Your task to perform on an android device: open app "Google Docs" (install if not already installed) Image 0: 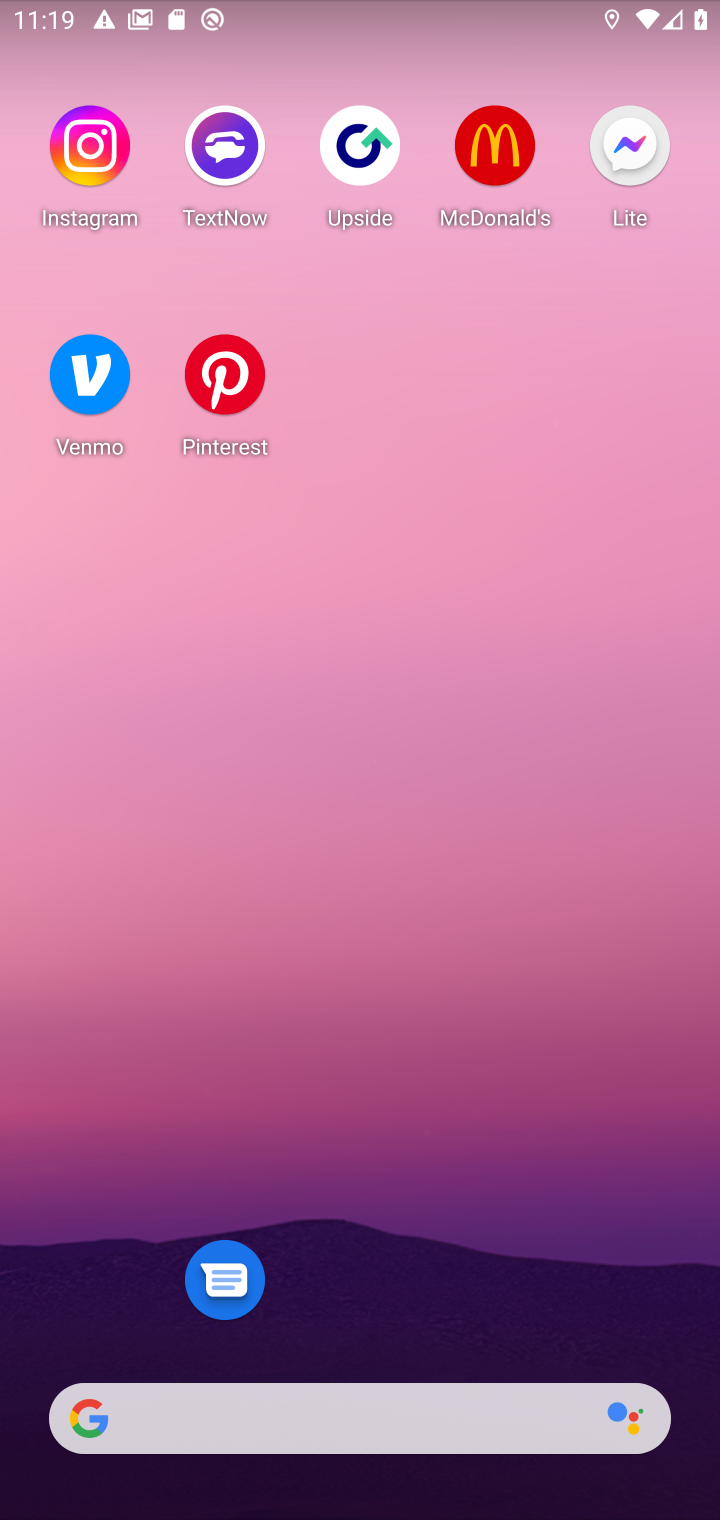
Step 0: drag from (351, 1344) to (249, 0)
Your task to perform on an android device: open app "Google Docs" (install if not already installed) Image 1: 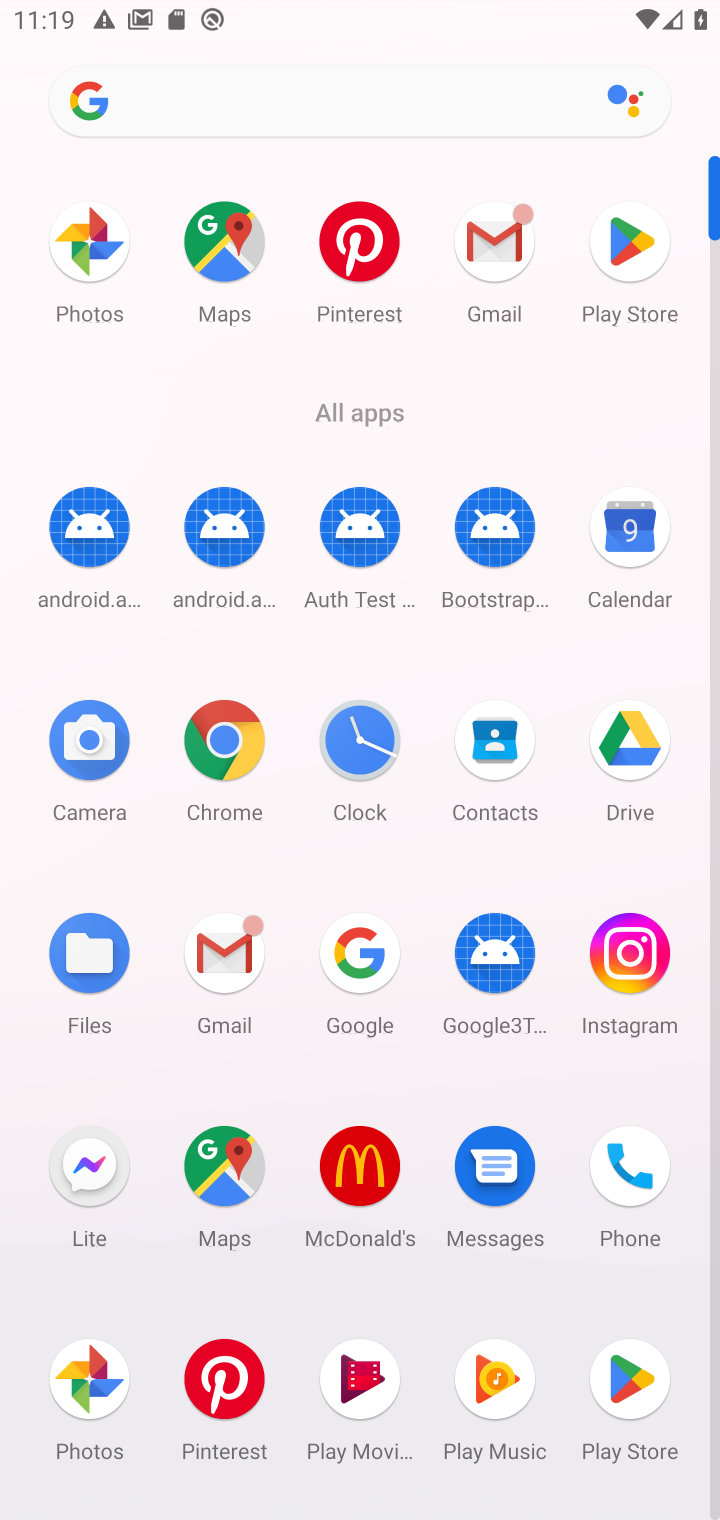
Step 1: click (635, 241)
Your task to perform on an android device: open app "Google Docs" (install if not already installed) Image 2: 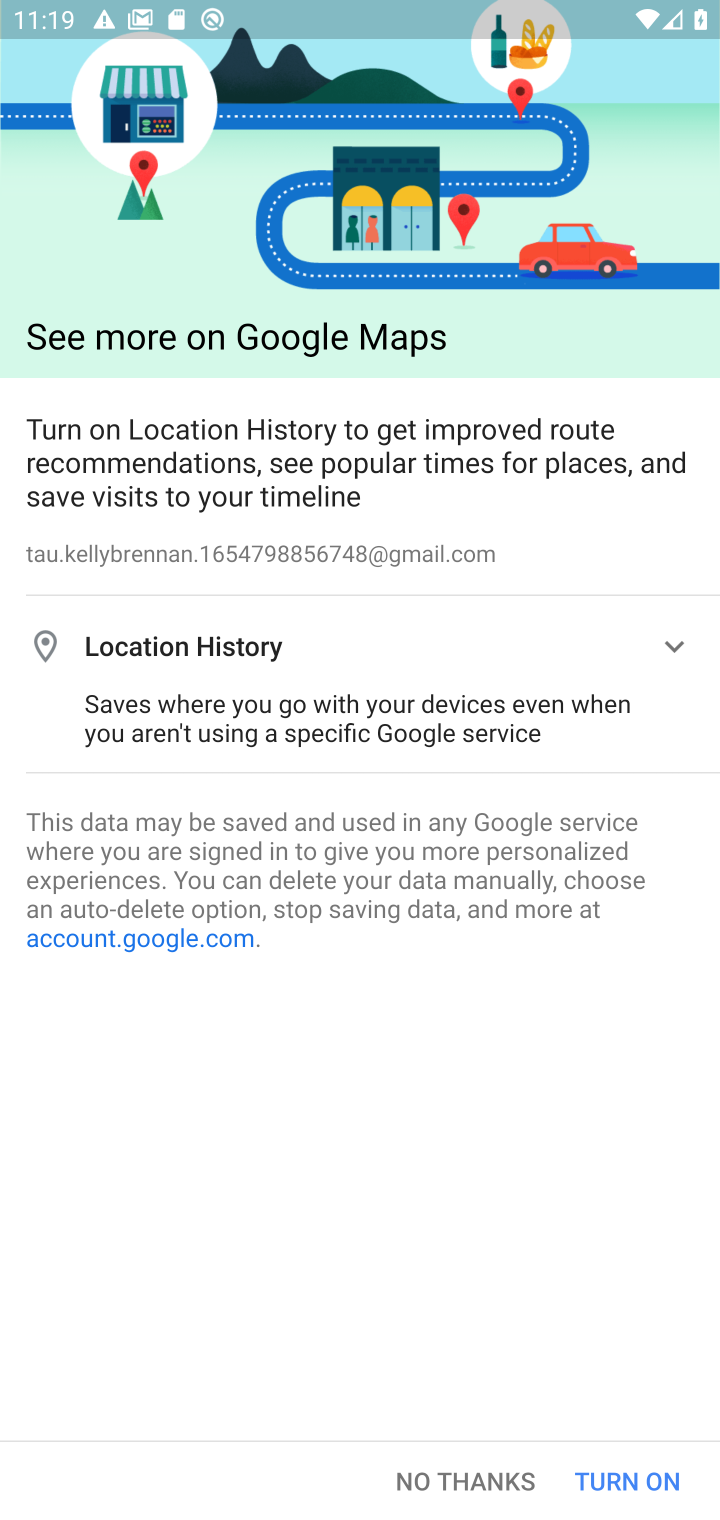
Step 2: press home button
Your task to perform on an android device: open app "Google Docs" (install if not already installed) Image 3: 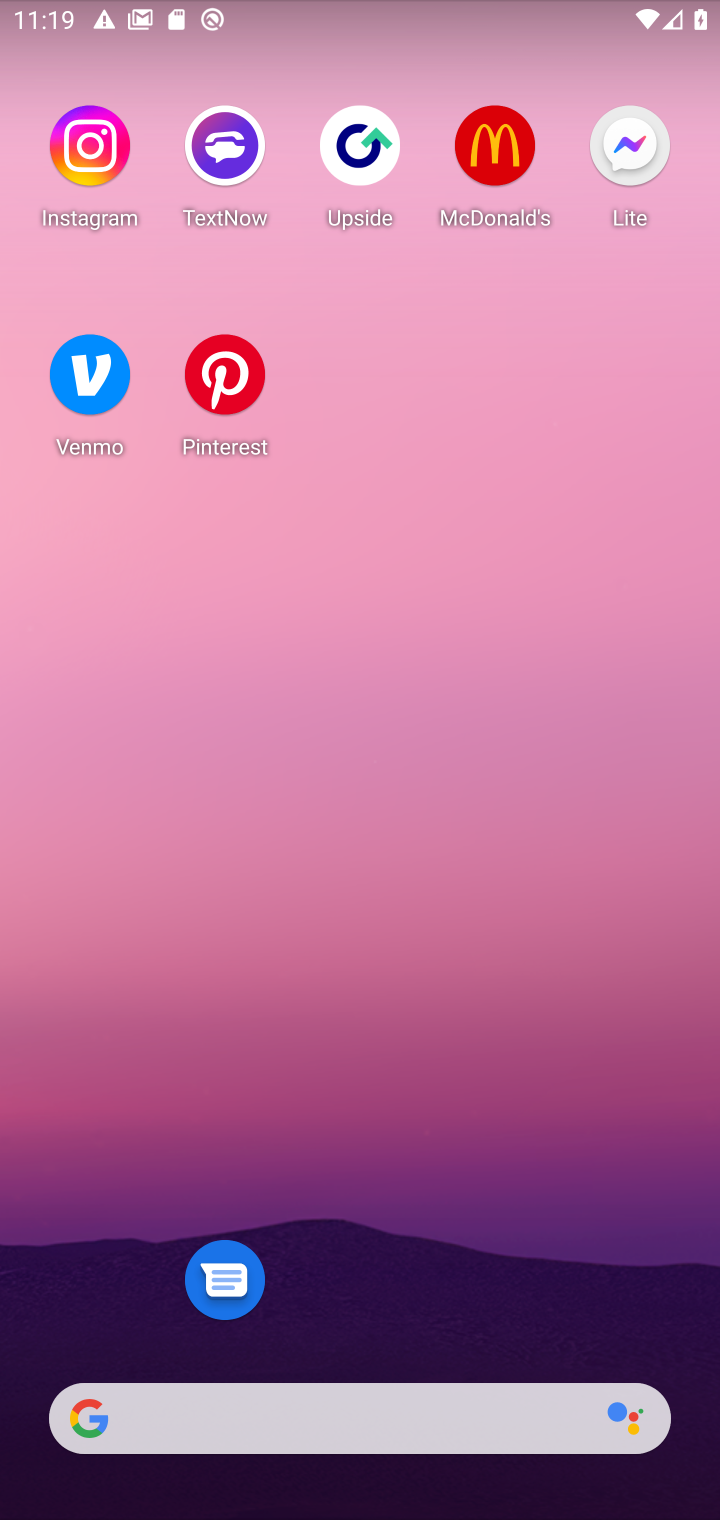
Step 3: drag from (387, 1333) to (658, 621)
Your task to perform on an android device: open app "Google Docs" (install if not already installed) Image 4: 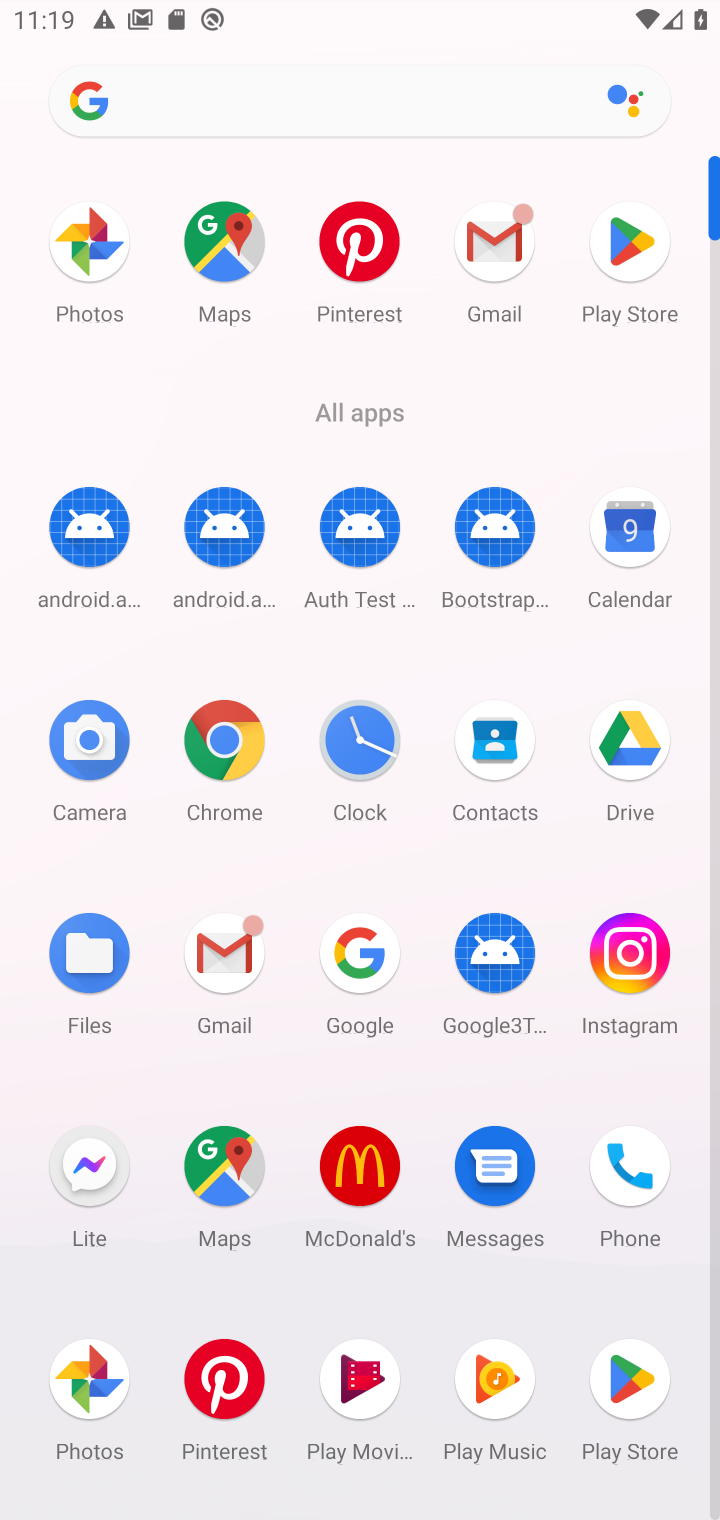
Step 4: click (604, 1392)
Your task to perform on an android device: open app "Google Docs" (install if not already installed) Image 5: 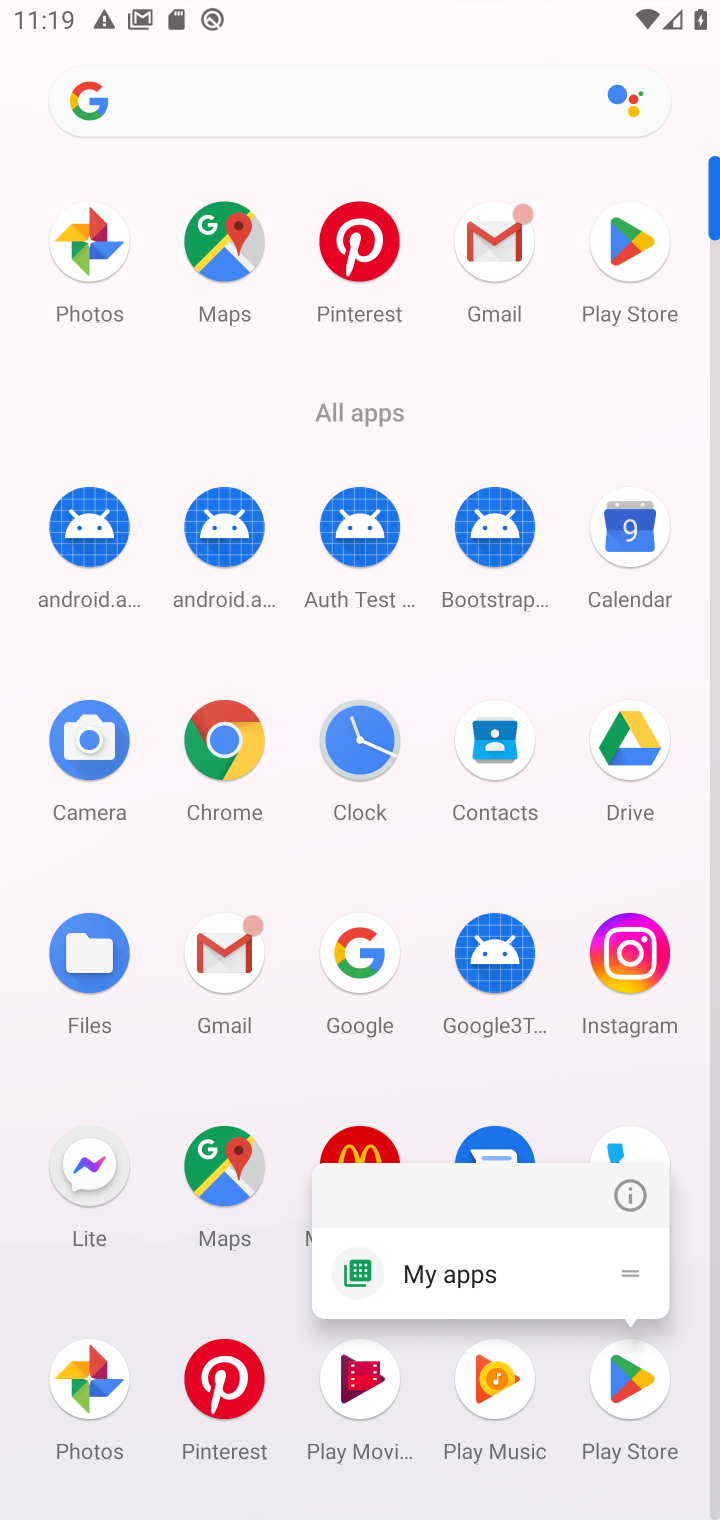
Step 5: click (644, 1423)
Your task to perform on an android device: open app "Google Docs" (install if not already installed) Image 6: 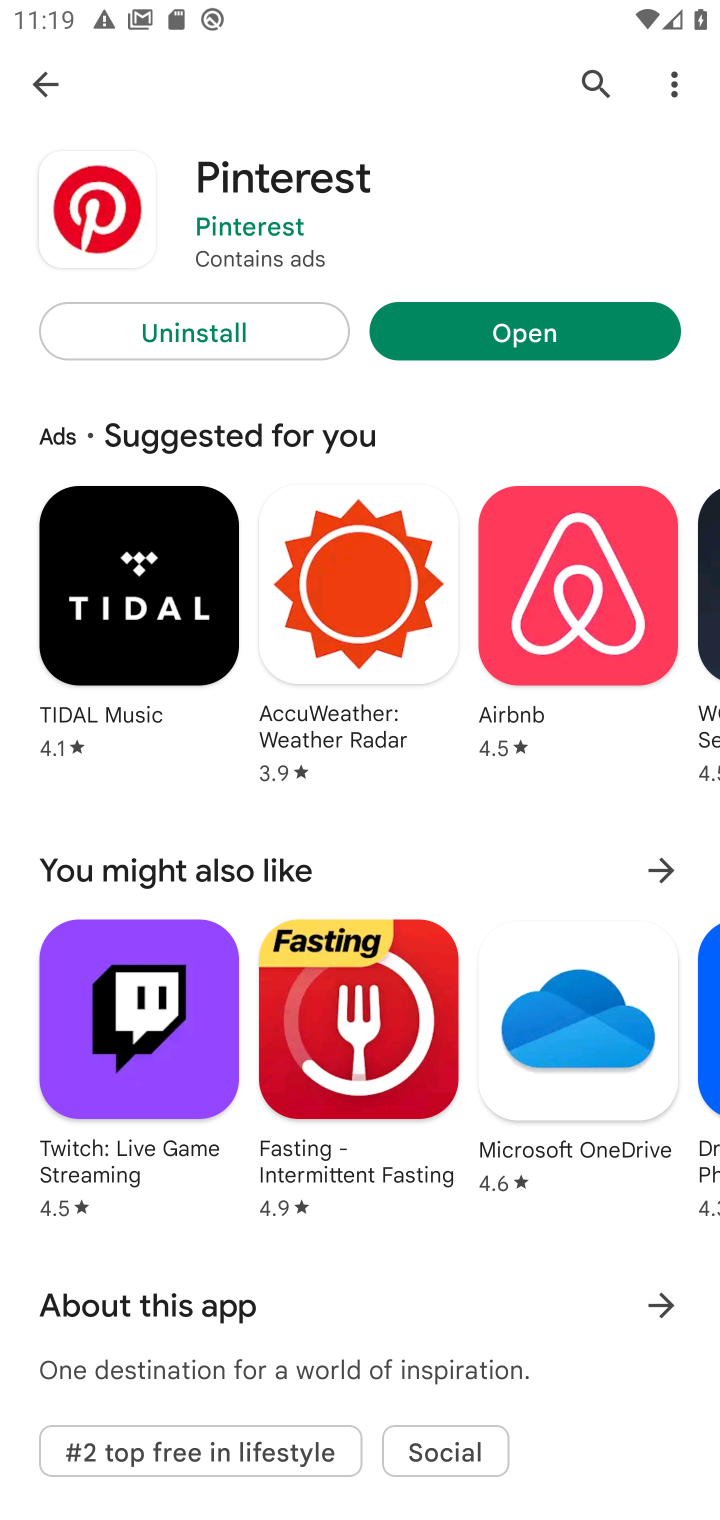
Step 6: click (54, 87)
Your task to perform on an android device: open app "Google Docs" (install if not already installed) Image 7: 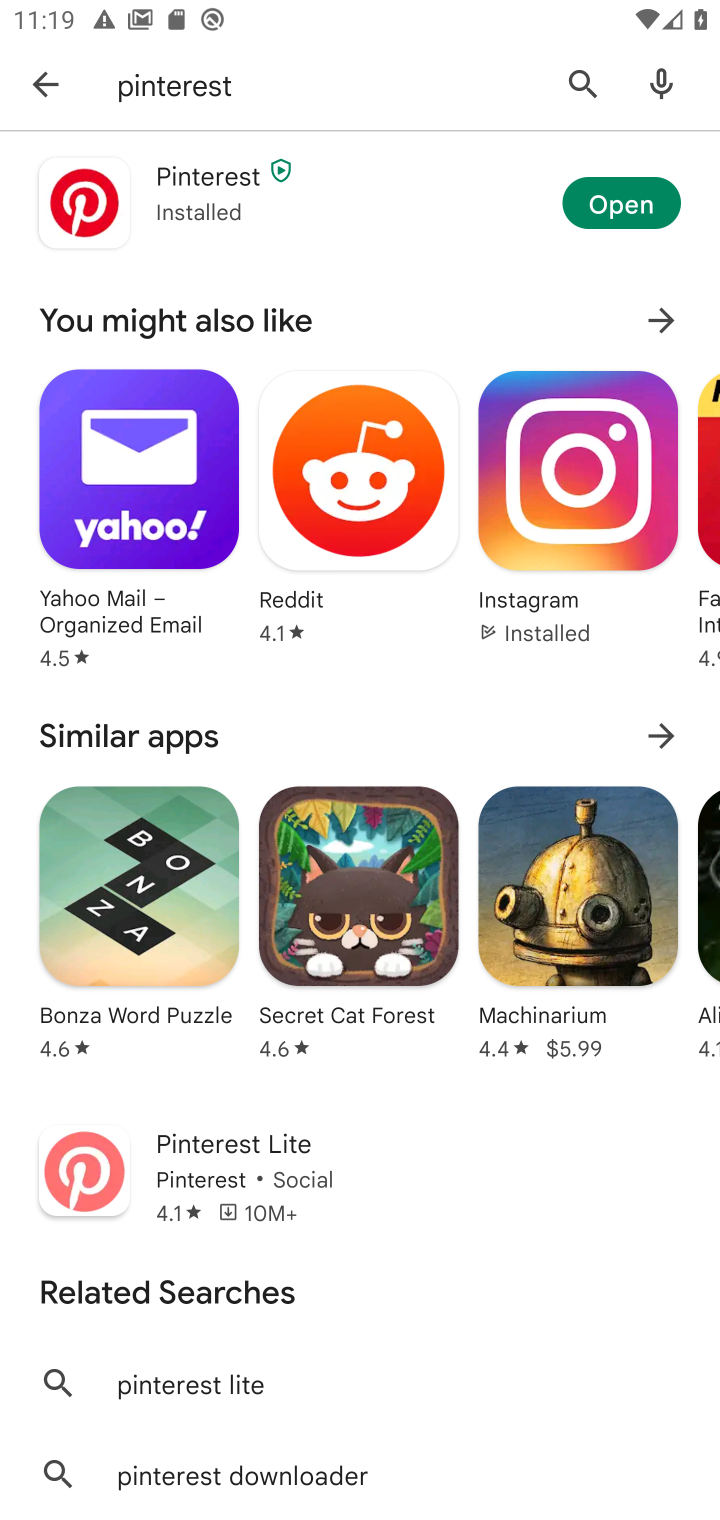
Step 7: click (43, 73)
Your task to perform on an android device: open app "Google Docs" (install if not already installed) Image 8: 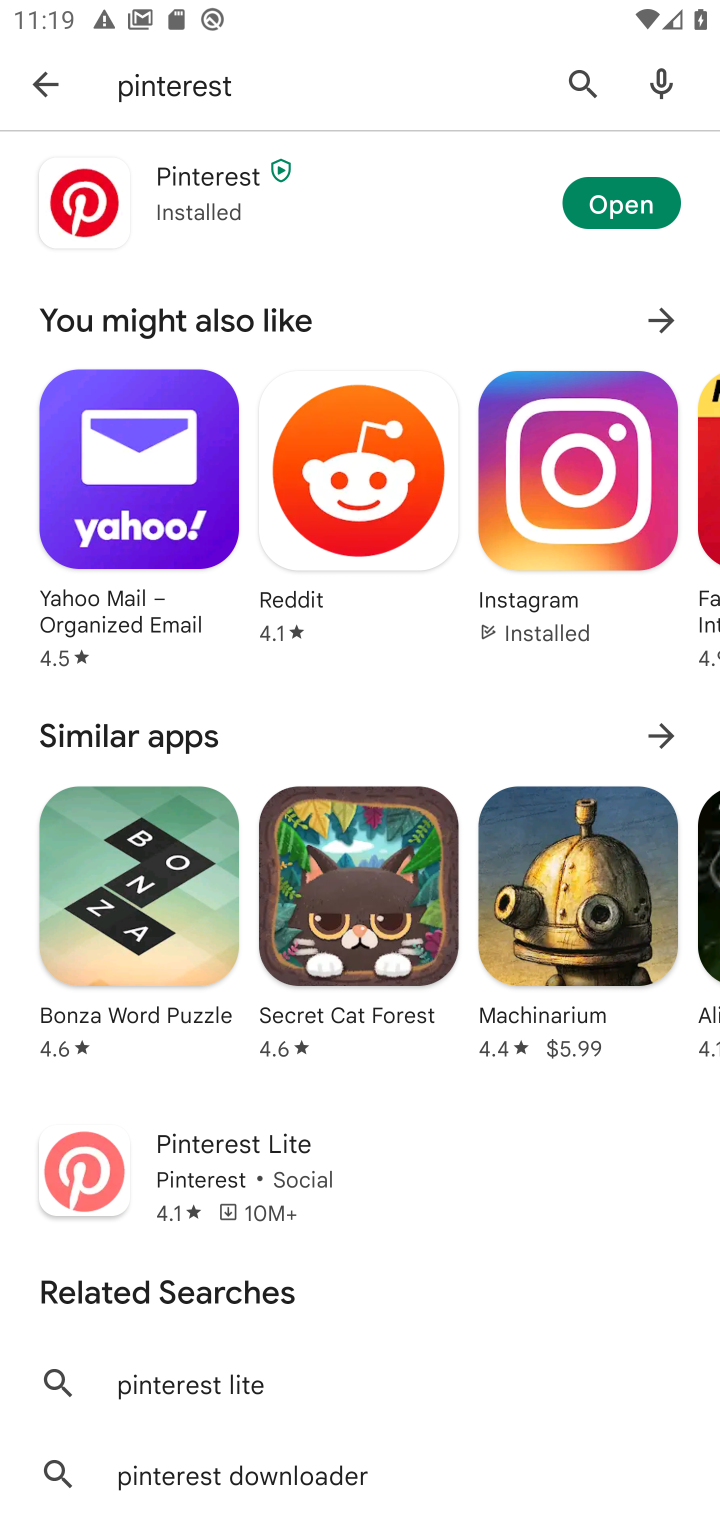
Step 8: click (43, 68)
Your task to perform on an android device: open app "Google Docs" (install if not already installed) Image 9: 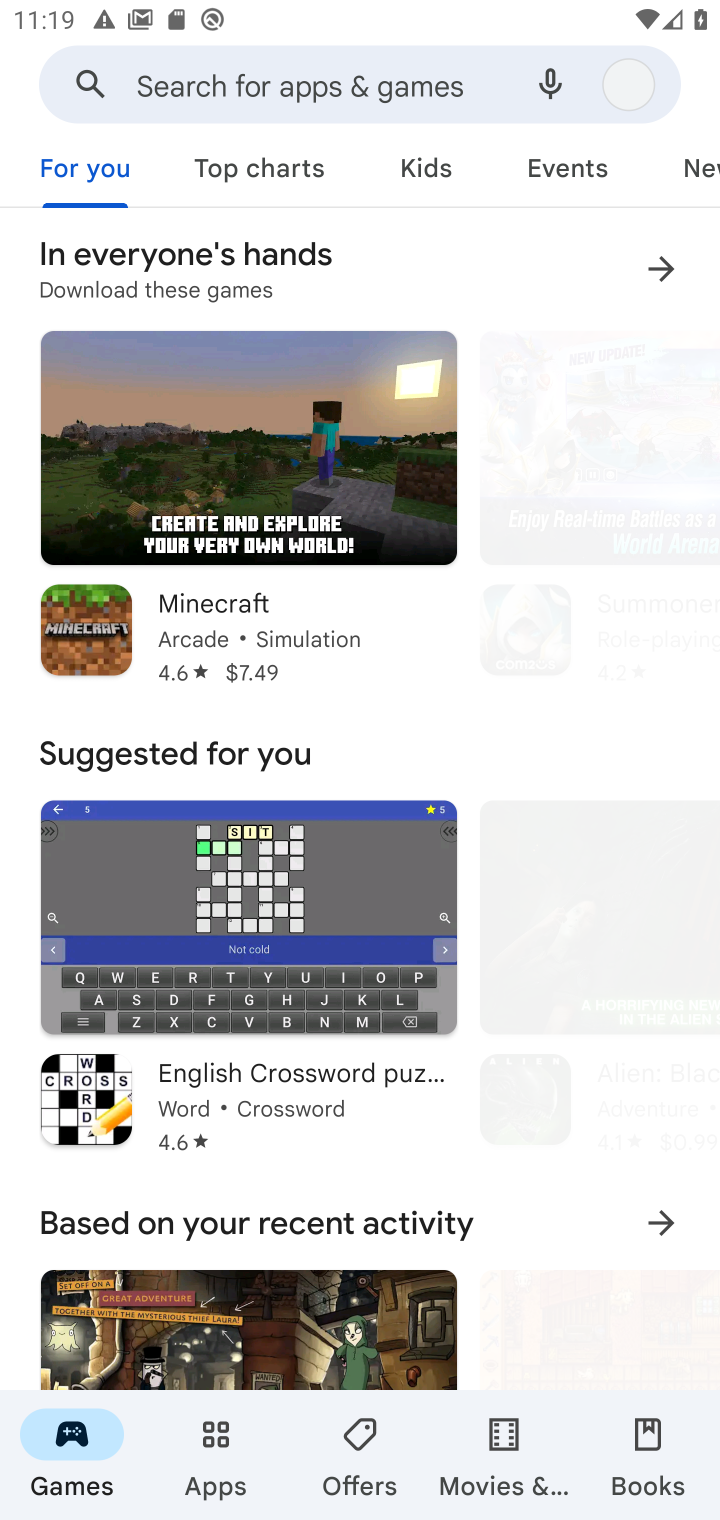
Step 9: click (562, 85)
Your task to perform on an android device: open app "Google Docs" (install if not already installed) Image 10: 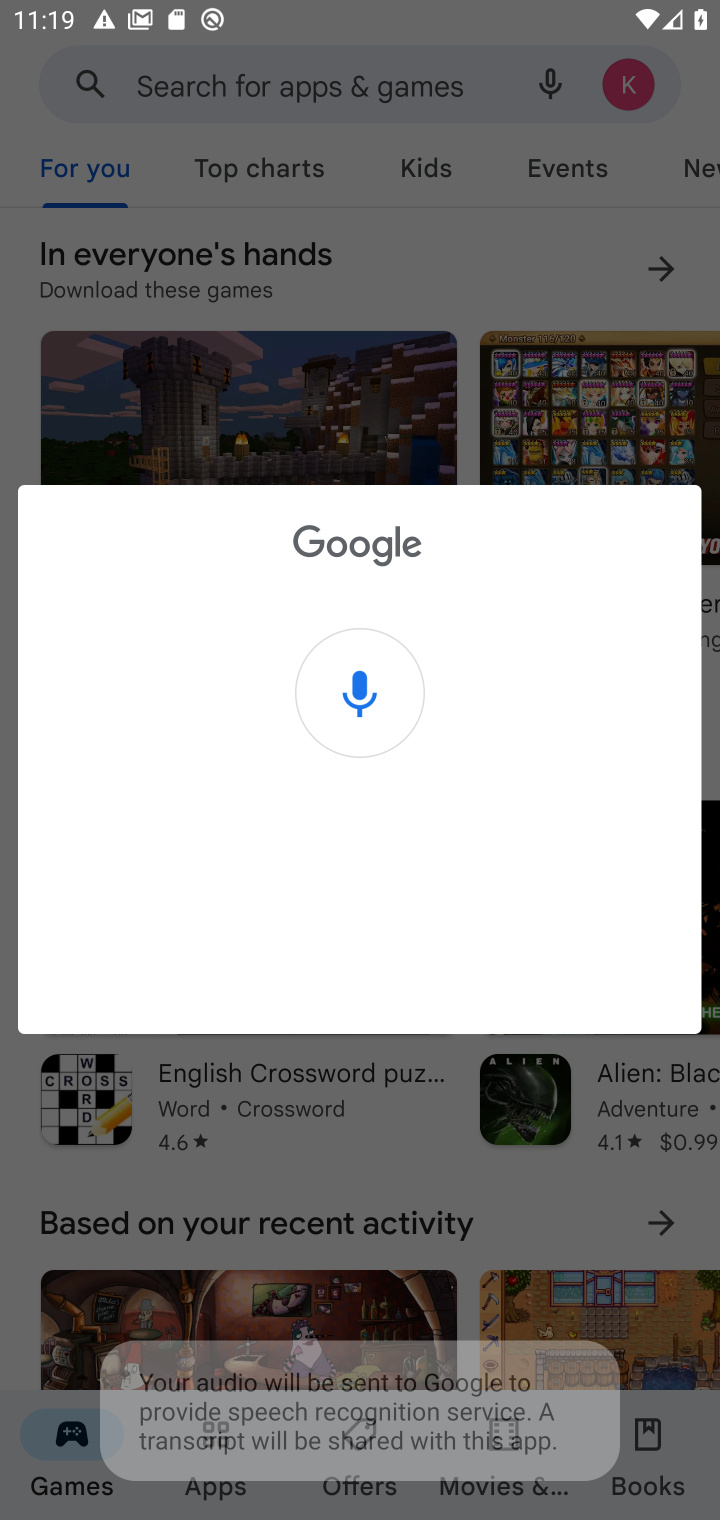
Step 10: click (422, 69)
Your task to perform on an android device: open app "Google Docs" (install if not already installed) Image 11: 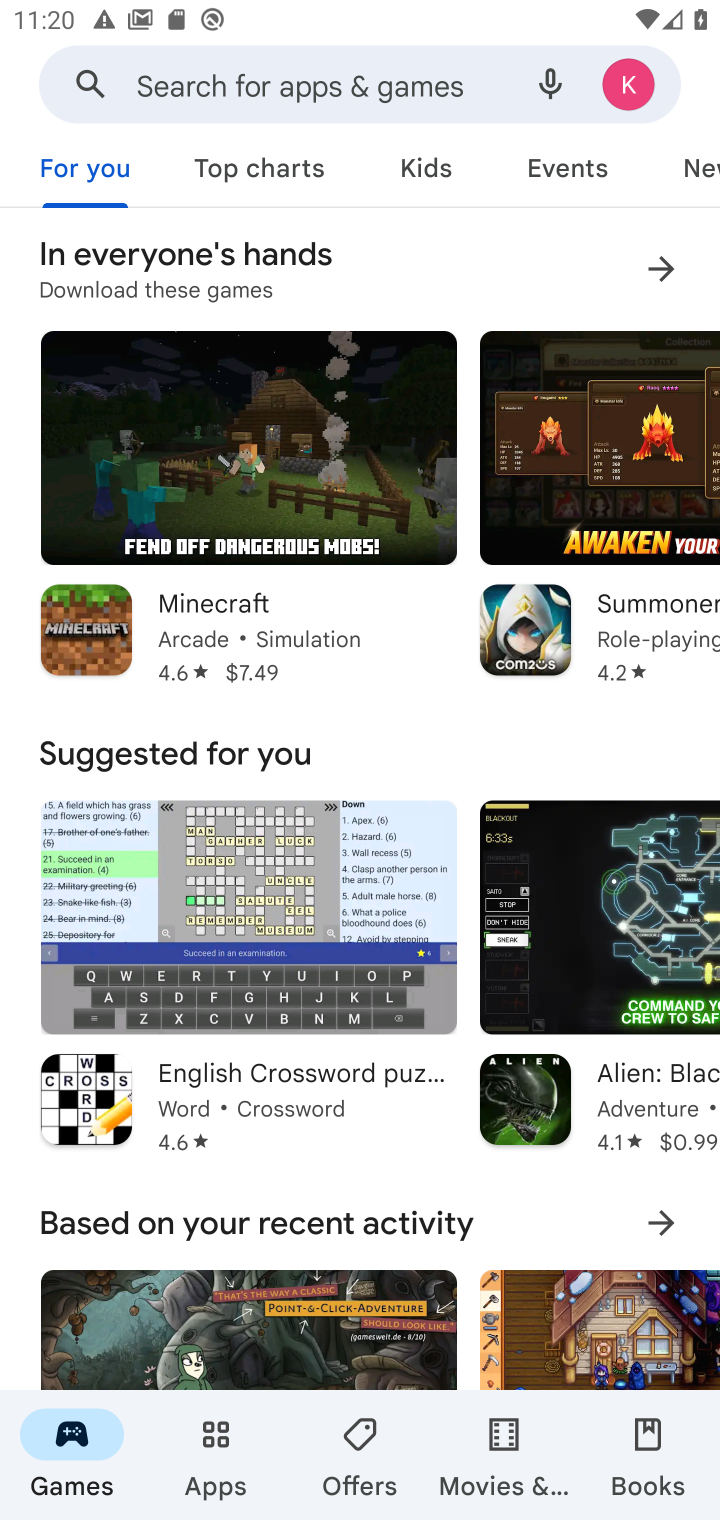
Step 11: click (417, 78)
Your task to perform on an android device: open app "Google Docs" (install if not already installed) Image 12: 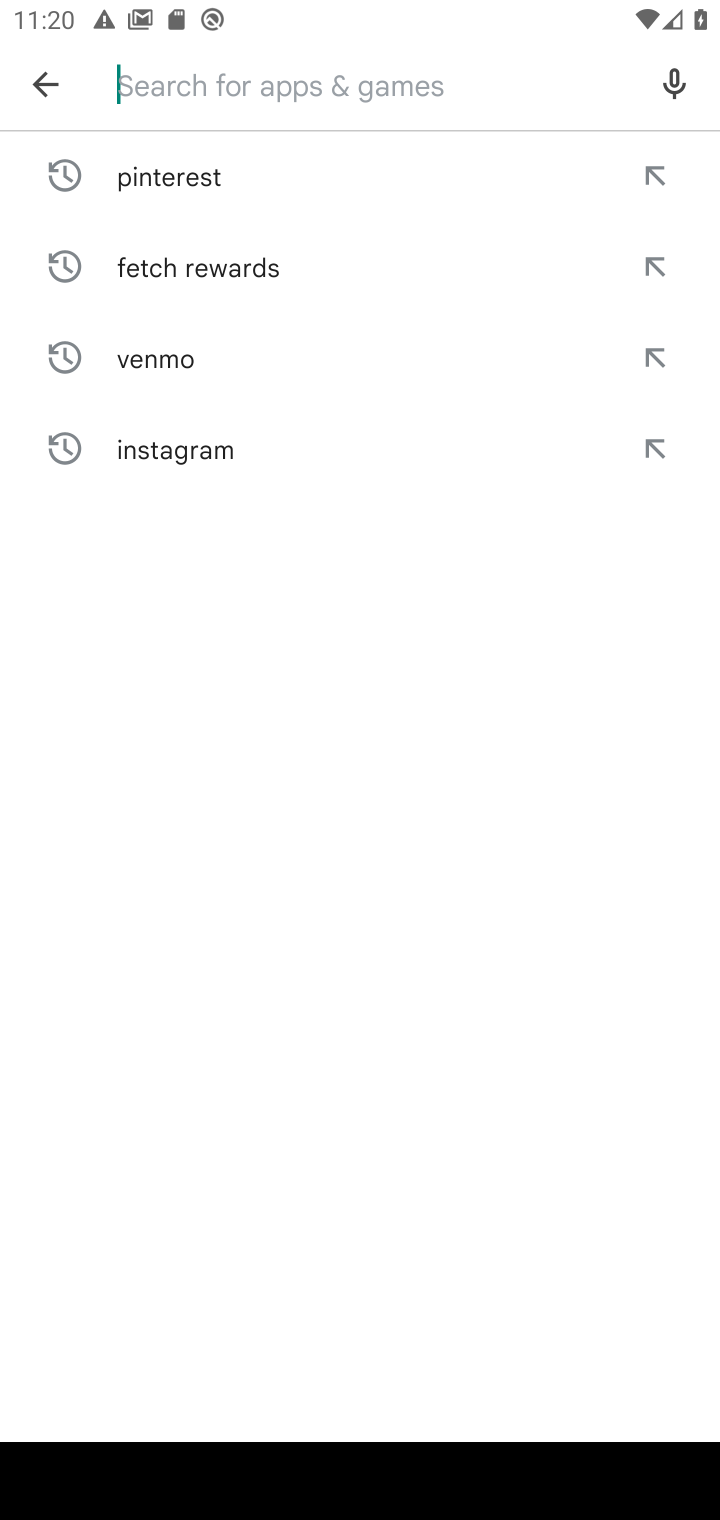
Step 12: type "Google Docs"
Your task to perform on an android device: open app "Google Docs" (install if not already installed) Image 13: 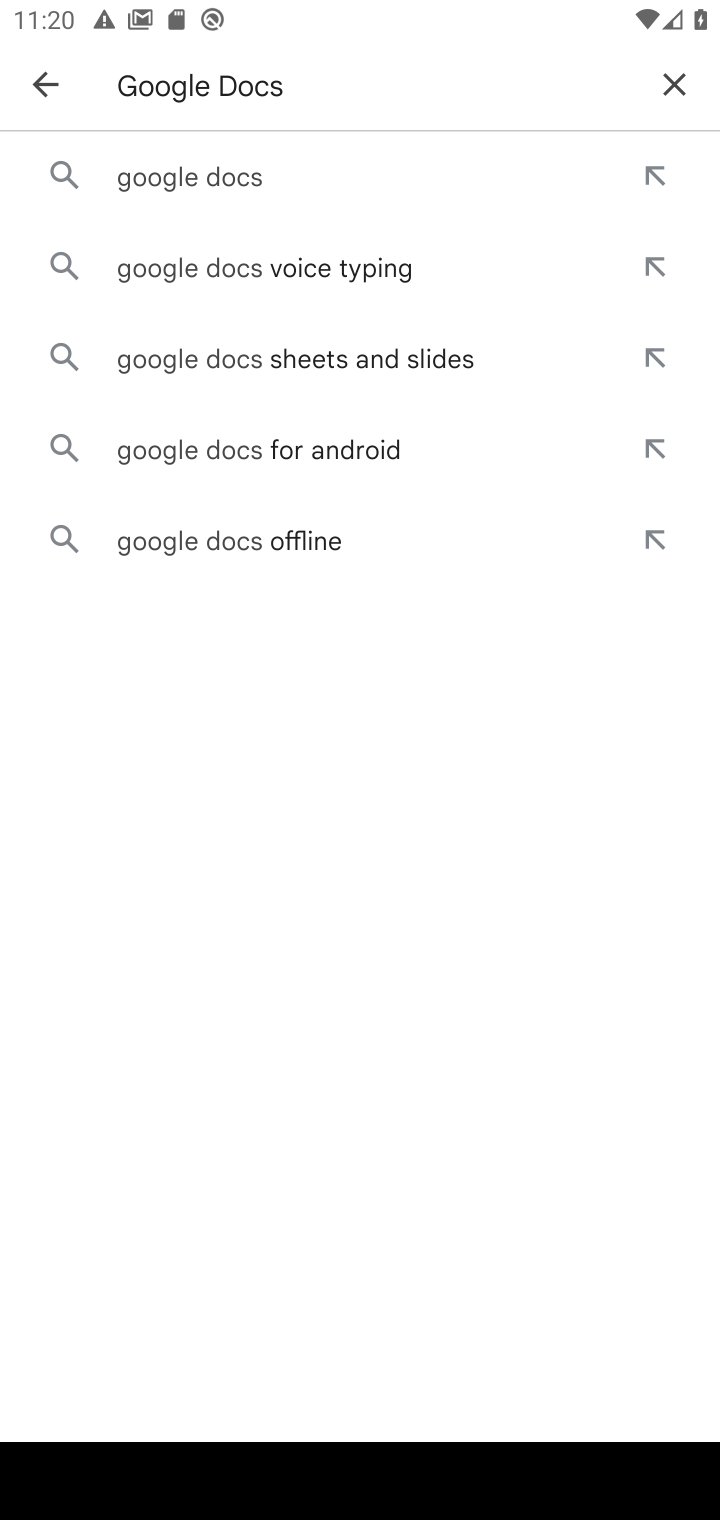
Step 13: click (139, 172)
Your task to perform on an android device: open app "Google Docs" (install if not already installed) Image 14: 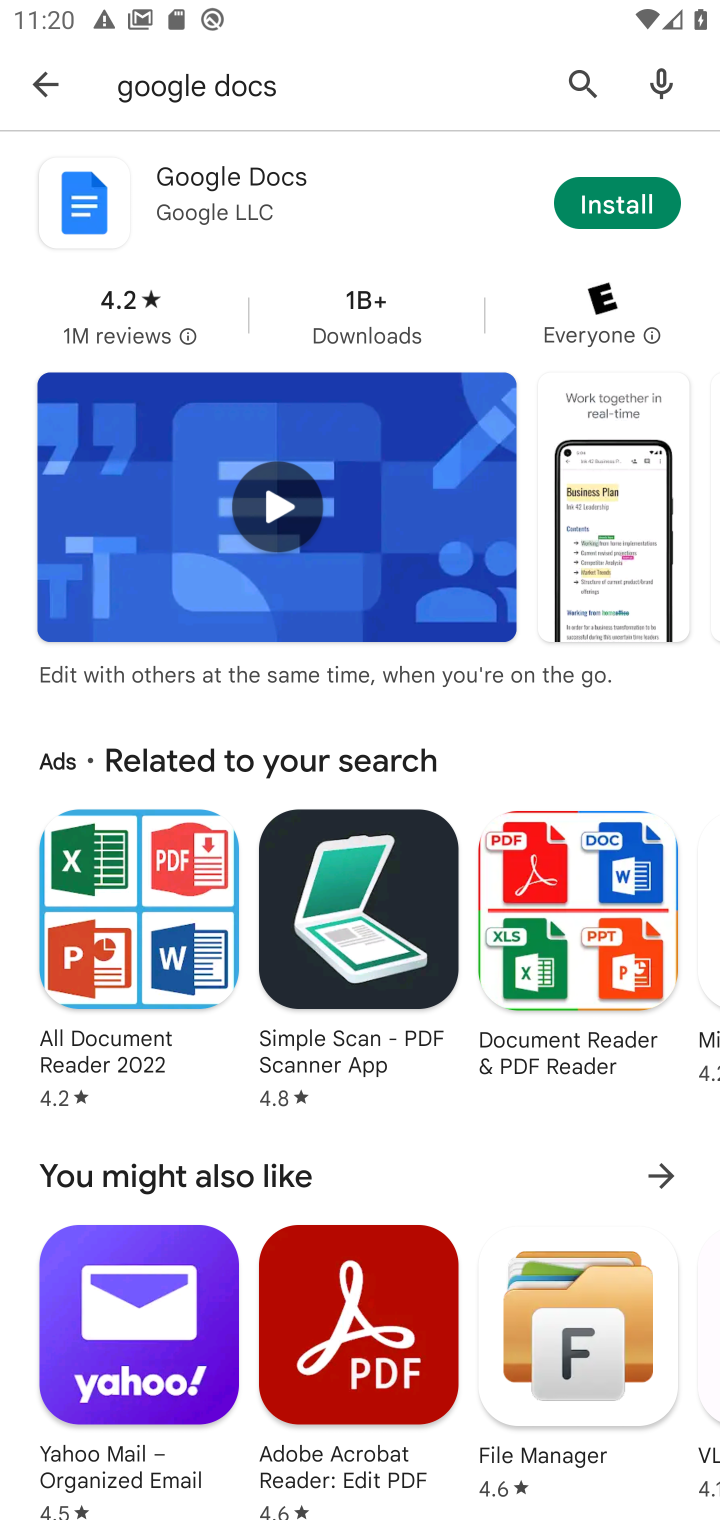
Step 14: click (613, 196)
Your task to perform on an android device: open app "Google Docs" (install if not already installed) Image 15: 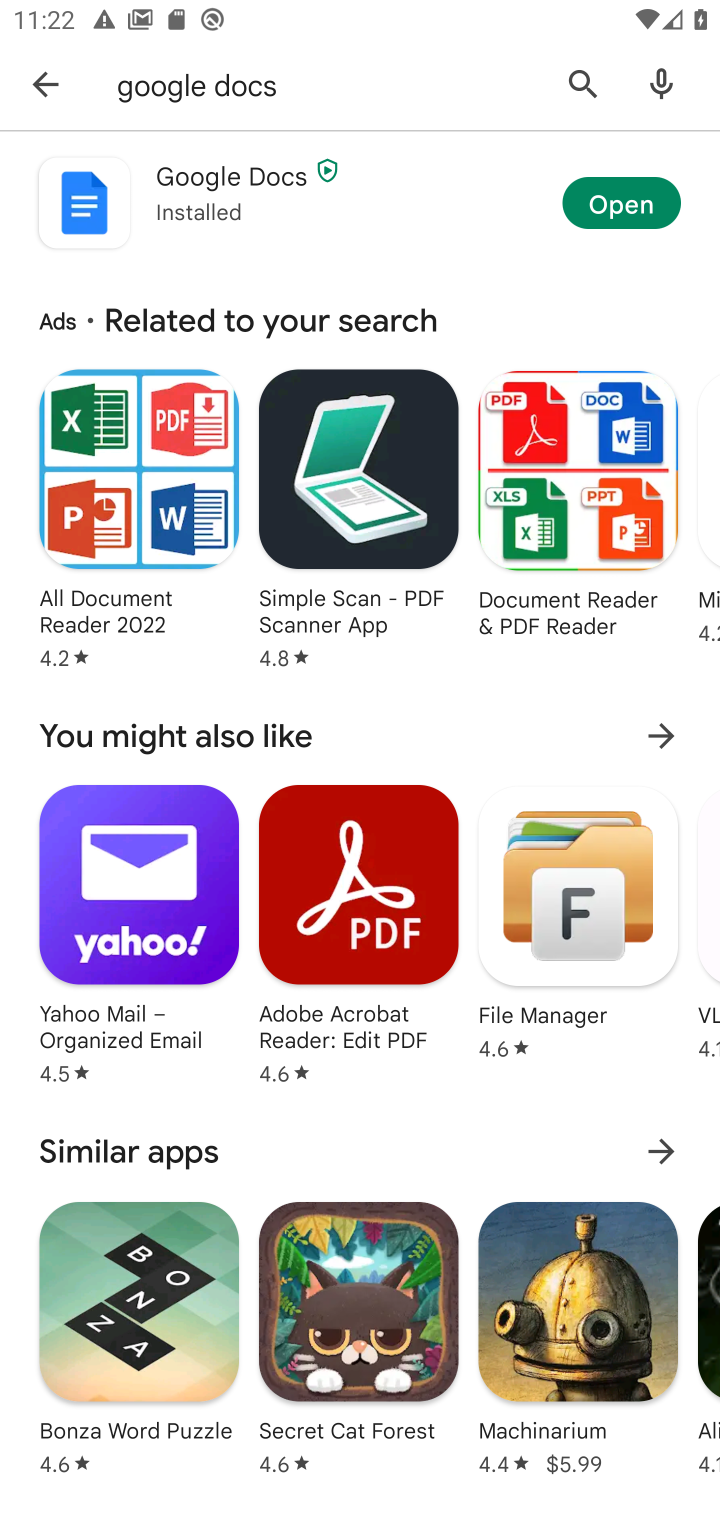
Step 15: click (637, 181)
Your task to perform on an android device: open app "Google Docs" (install if not already installed) Image 16: 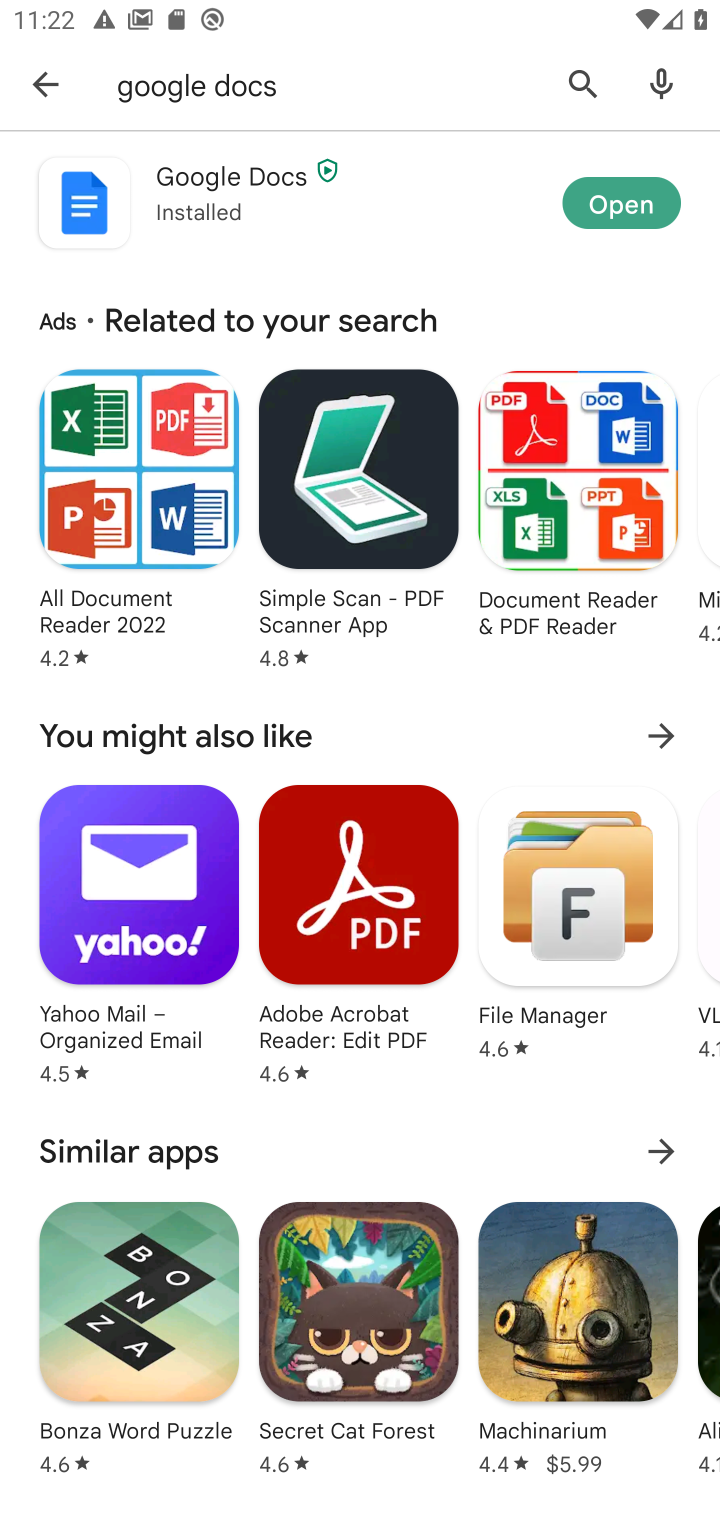
Step 16: task complete